Your task to perform on an android device: What's the weather? Image 0: 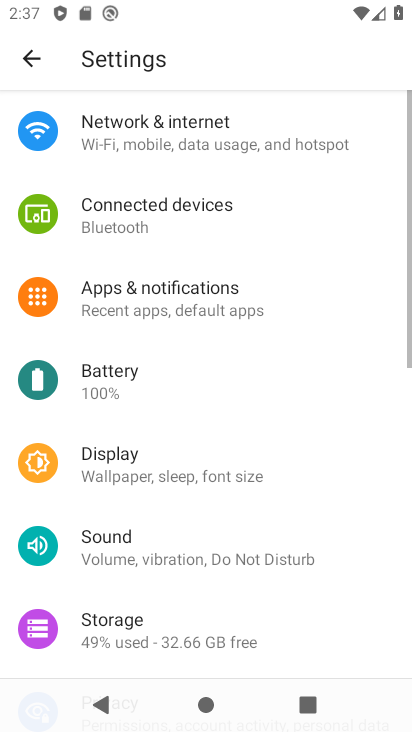
Step 0: press home button
Your task to perform on an android device: What's the weather? Image 1: 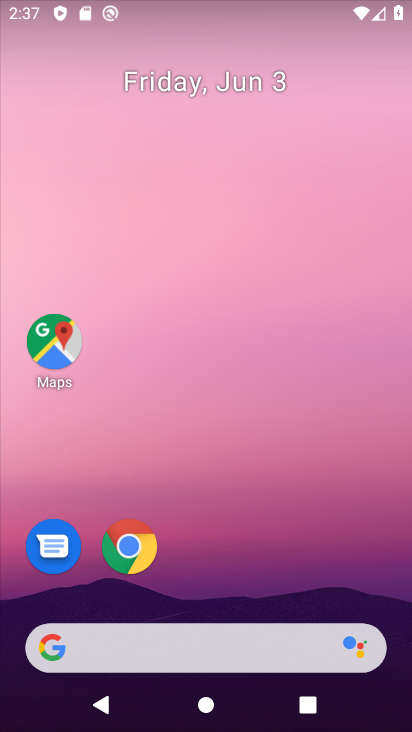
Step 1: click (136, 653)
Your task to perform on an android device: What's the weather? Image 2: 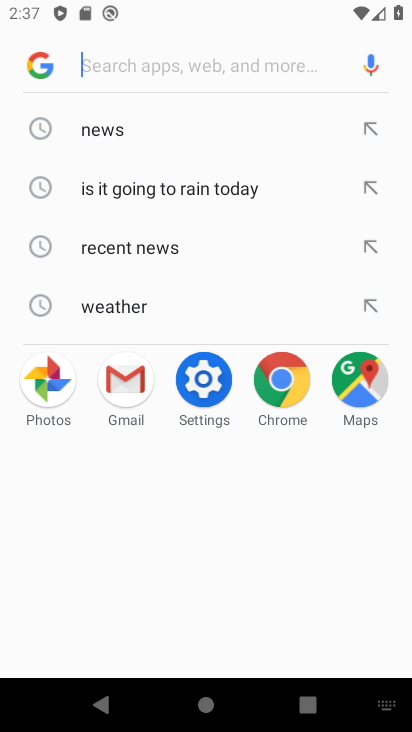
Step 2: type "what's the weather"
Your task to perform on an android device: What's the weather? Image 3: 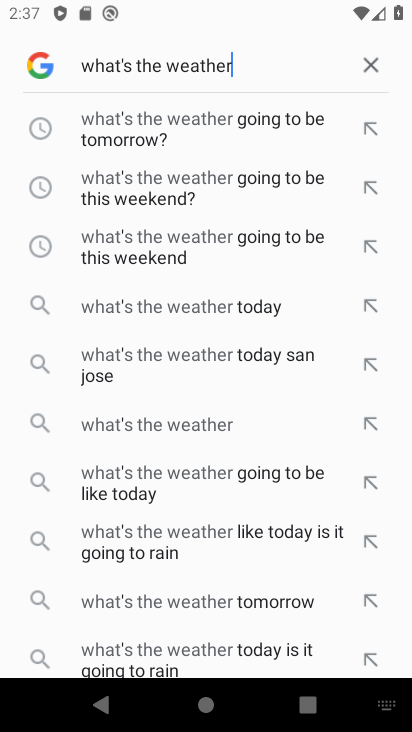
Step 3: click (177, 430)
Your task to perform on an android device: What's the weather? Image 4: 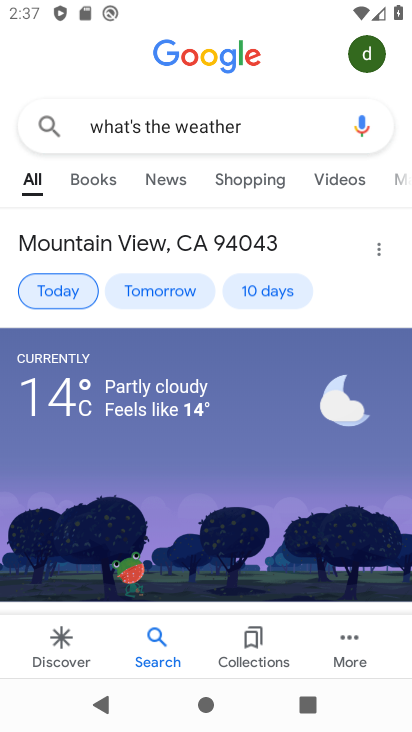
Step 4: task complete